Your task to perform on an android device: clear all cookies in the chrome app Image 0: 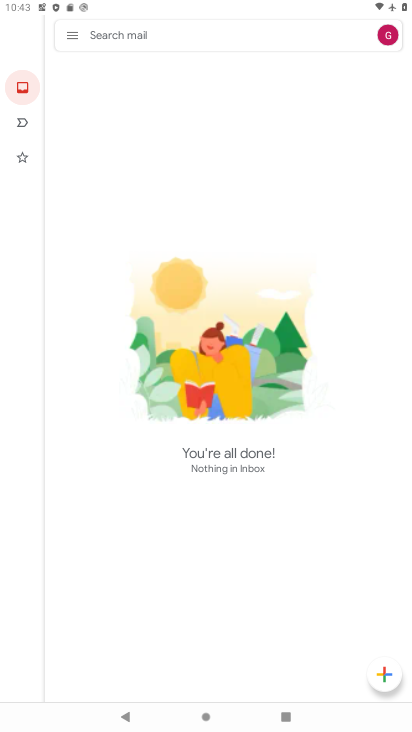
Step 0: task complete